Your task to perform on an android device: change the clock style Image 0: 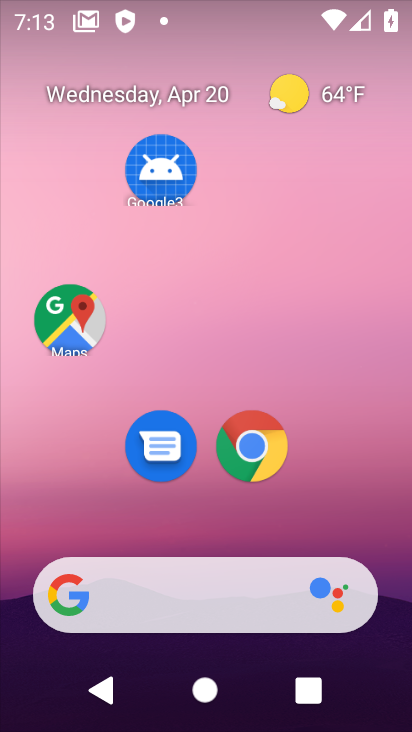
Step 0: drag from (203, 518) to (278, 13)
Your task to perform on an android device: change the clock style Image 1: 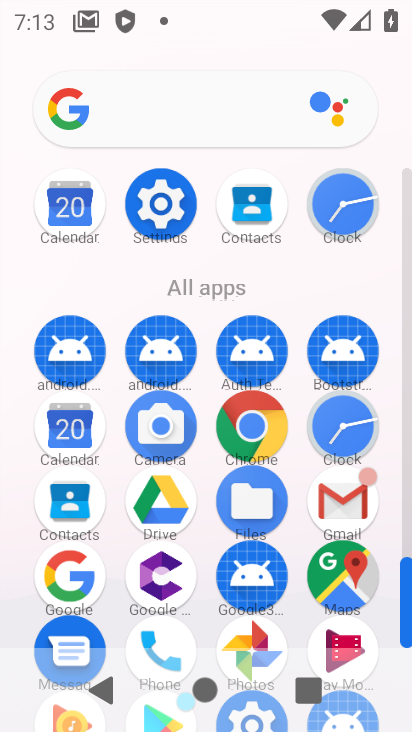
Step 1: click (348, 198)
Your task to perform on an android device: change the clock style Image 2: 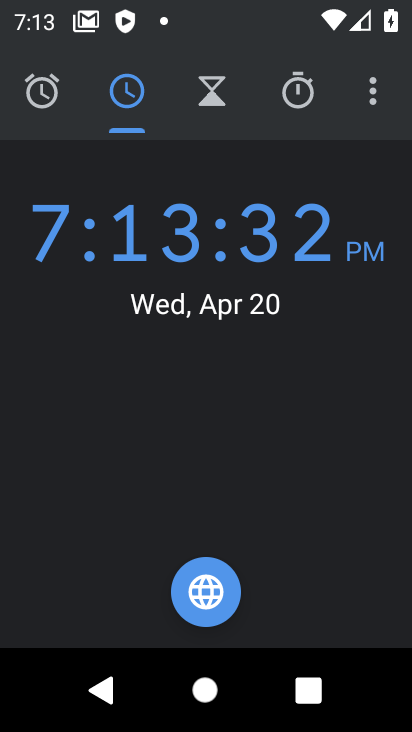
Step 2: click (371, 94)
Your task to perform on an android device: change the clock style Image 3: 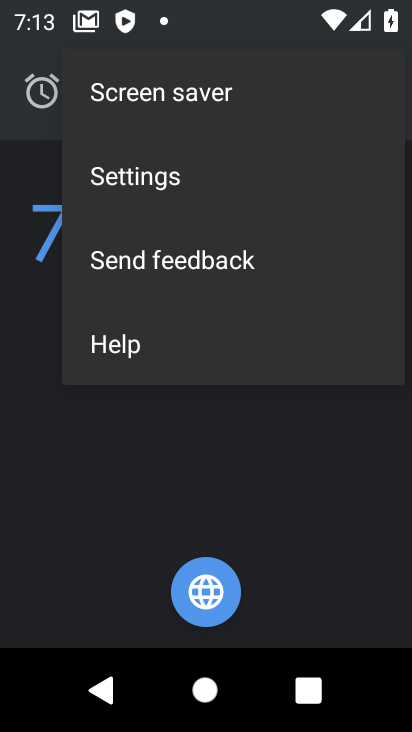
Step 3: click (151, 180)
Your task to perform on an android device: change the clock style Image 4: 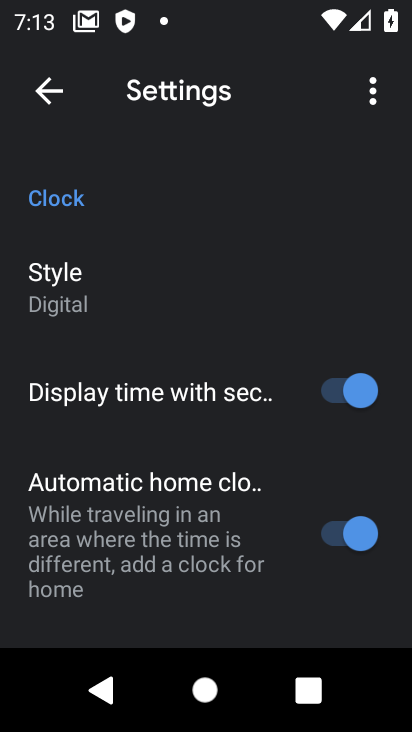
Step 4: click (62, 285)
Your task to perform on an android device: change the clock style Image 5: 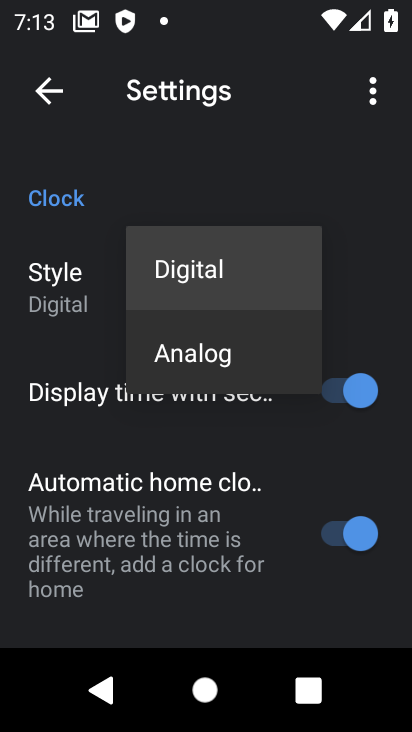
Step 5: click (197, 354)
Your task to perform on an android device: change the clock style Image 6: 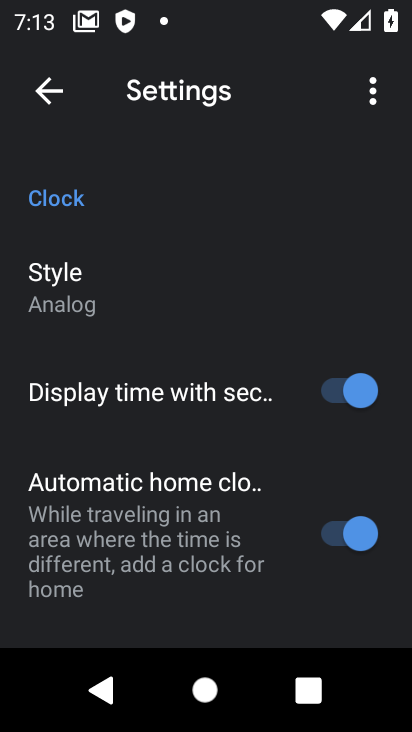
Step 6: task complete